Your task to perform on an android device: Look up the best selling patio furniture on Home Depot Image 0: 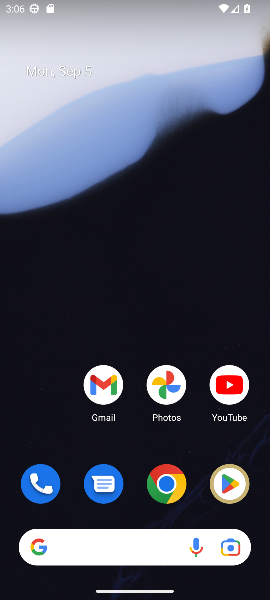
Step 0: click (158, 500)
Your task to perform on an android device: Look up the best selling patio furniture on Home Depot Image 1: 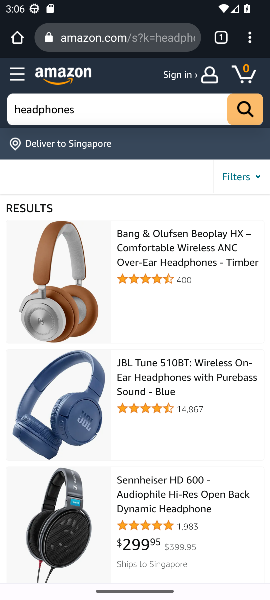
Step 1: click (136, 36)
Your task to perform on an android device: Look up the best selling patio furniture on Home Depot Image 2: 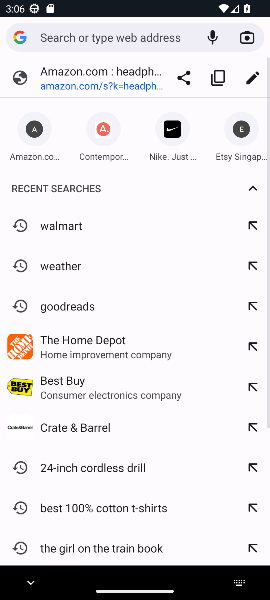
Step 2: click (163, 33)
Your task to perform on an android device: Look up the best selling patio furniture on Home Depot Image 3: 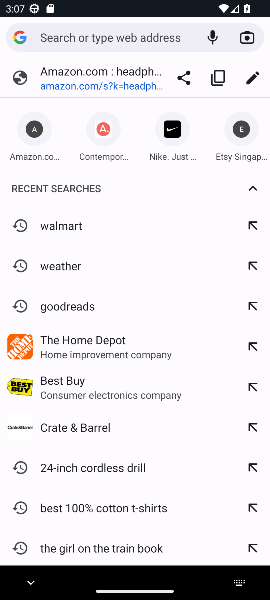
Step 3: type "Home Depot"
Your task to perform on an android device: Look up the best selling patio furniture on Home Depot Image 4: 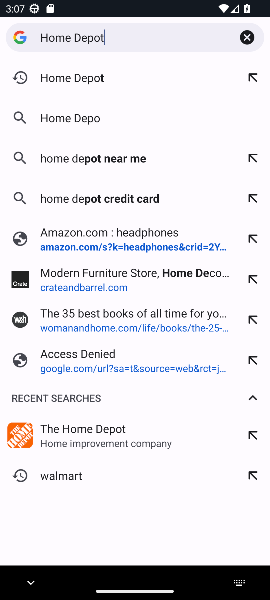
Step 4: press enter
Your task to perform on an android device: Look up the best selling patio furniture on Home Depot Image 5: 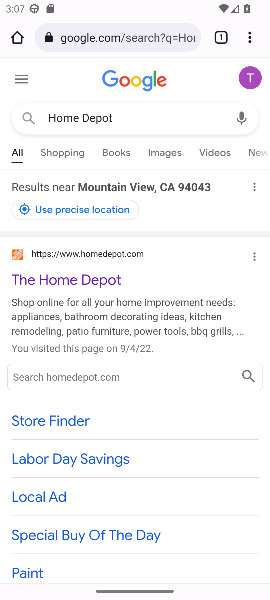
Step 5: click (44, 282)
Your task to perform on an android device: Look up the best selling patio furniture on Home Depot Image 6: 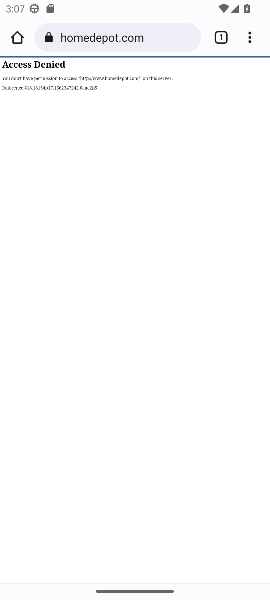
Step 6: task complete